Your task to perform on an android device: turn smart compose on in the gmail app Image 0: 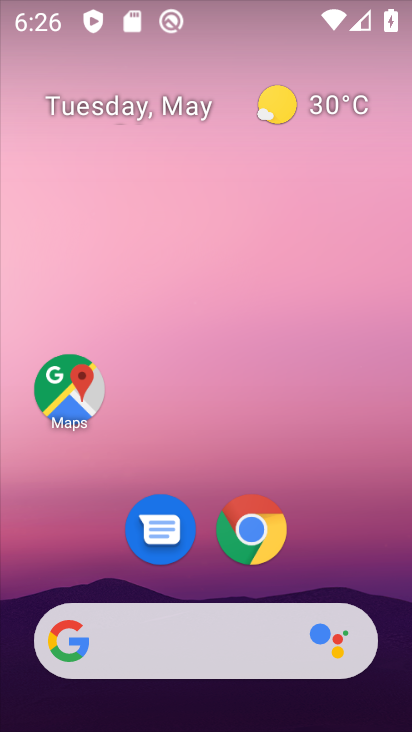
Step 0: drag from (386, 634) to (396, 49)
Your task to perform on an android device: turn smart compose on in the gmail app Image 1: 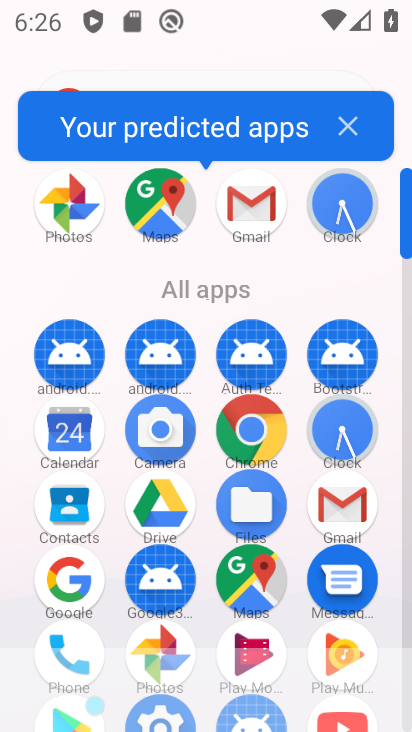
Step 1: click (338, 486)
Your task to perform on an android device: turn smart compose on in the gmail app Image 2: 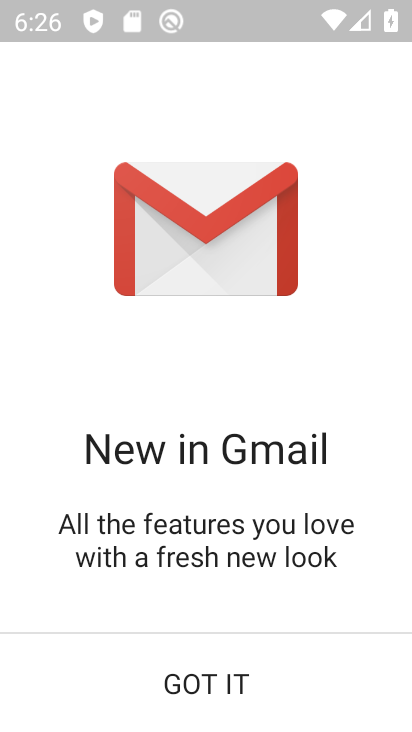
Step 2: click (195, 660)
Your task to perform on an android device: turn smart compose on in the gmail app Image 3: 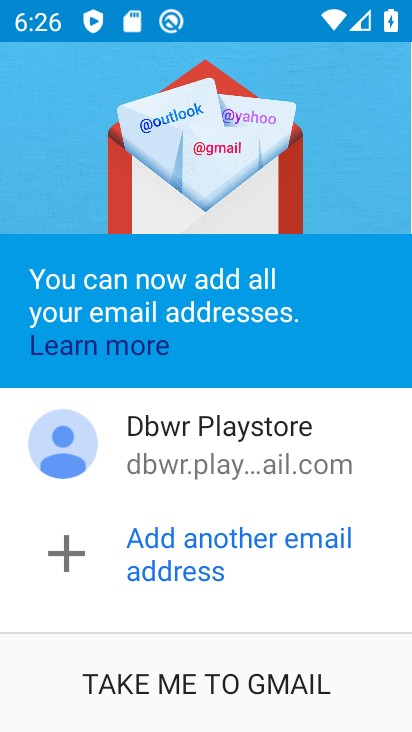
Step 3: click (195, 660)
Your task to perform on an android device: turn smart compose on in the gmail app Image 4: 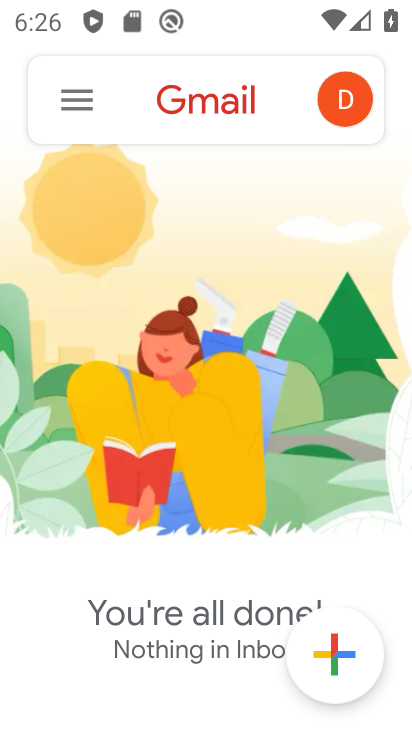
Step 4: click (69, 88)
Your task to perform on an android device: turn smart compose on in the gmail app Image 5: 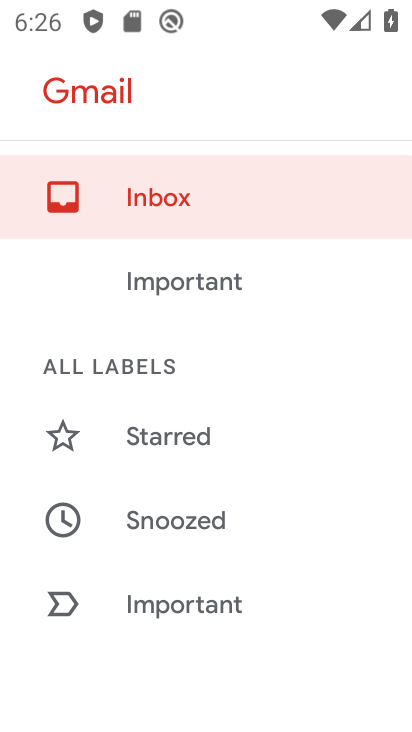
Step 5: drag from (207, 616) to (275, 29)
Your task to perform on an android device: turn smart compose on in the gmail app Image 6: 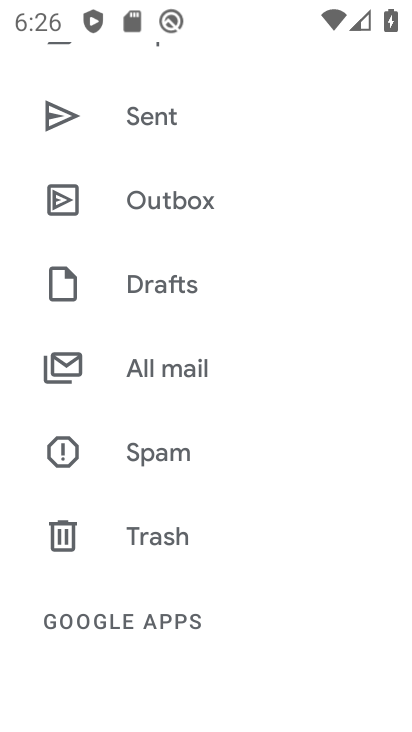
Step 6: drag from (214, 593) to (257, 90)
Your task to perform on an android device: turn smart compose on in the gmail app Image 7: 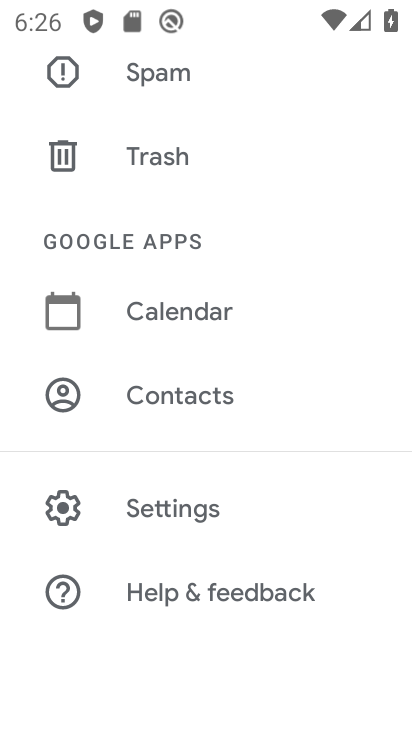
Step 7: click (224, 500)
Your task to perform on an android device: turn smart compose on in the gmail app Image 8: 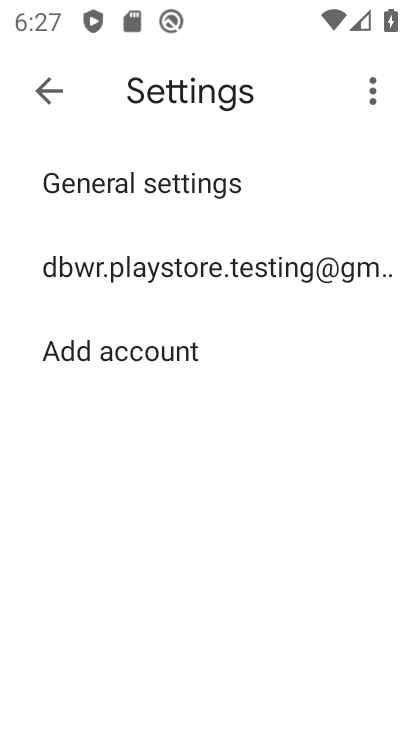
Step 8: click (220, 250)
Your task to perform on an android device: turn smart compose on in the gmail app Image 9: 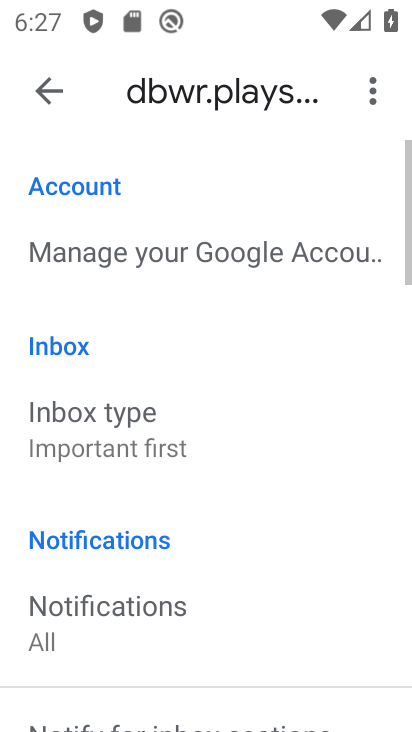
Step 9: task complete